Your task to perform on an android device: What's on my calendar tomorrow? Image 0: 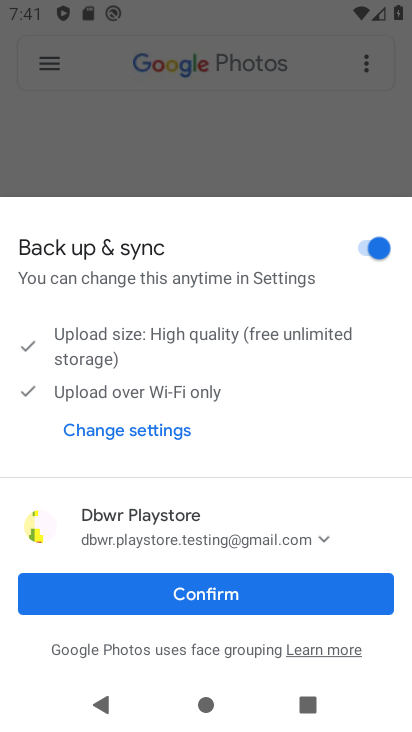
Step 0: press back button
Your task to perform on an android device: What's on my calendar tomorrow? Image 1: 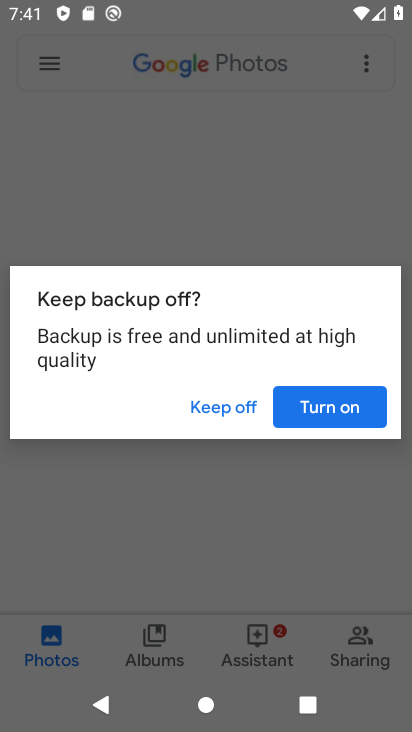
Step 1: press home button
Your task to perform on an android device: What's on my calendar tomorrow? Image 2: 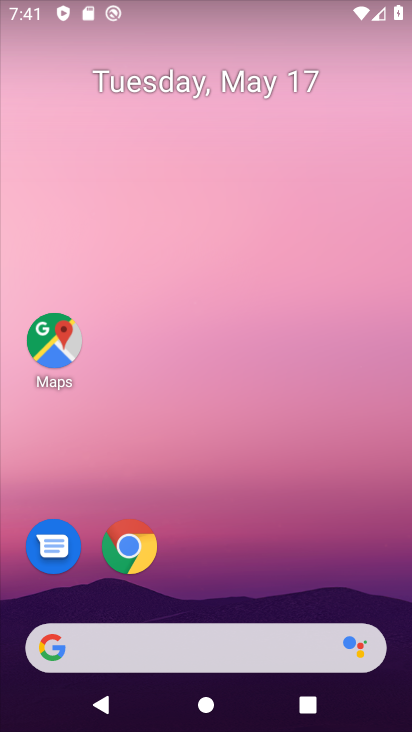
Step 2: drag from (258, 544) to (242, 85)
Your task to perform on an android device: What's on my calendar tomorrow? Image 3: 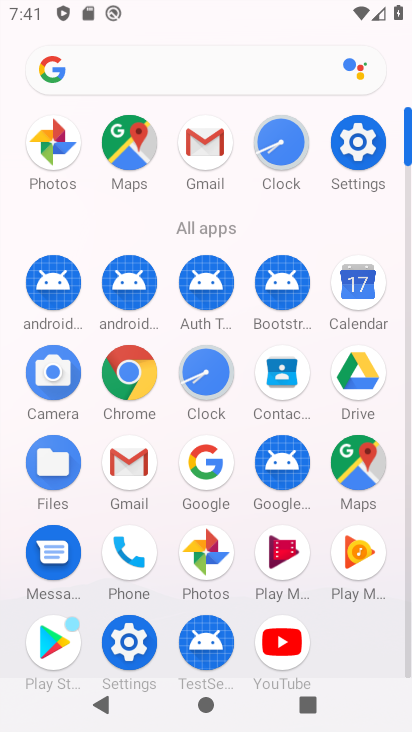
Step 3: click (365, 282)
Your task to perform on an android device: What's on my calendar tomorrow? Image 4: 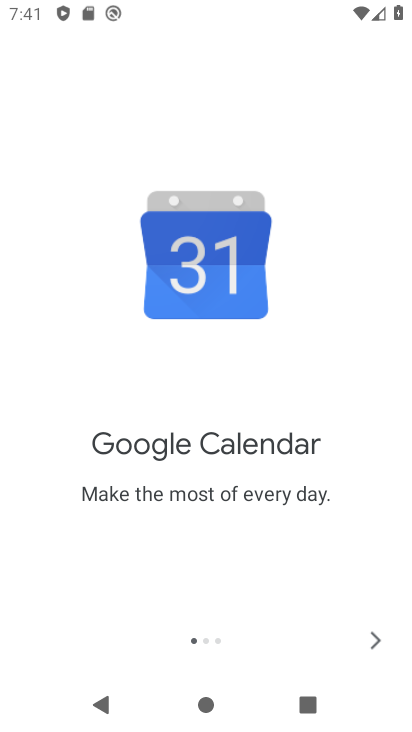
Step 4: click (382, 639)
Your task to perform on an android device: What's on my calendar tomorrow? Image 5: 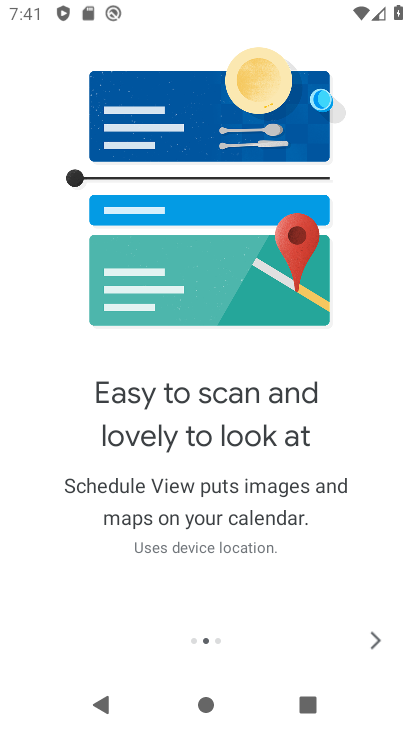
Step 5: click (382, 639)
Your task to perform on an android device: What's on my calendar tomorrow? Image 6: 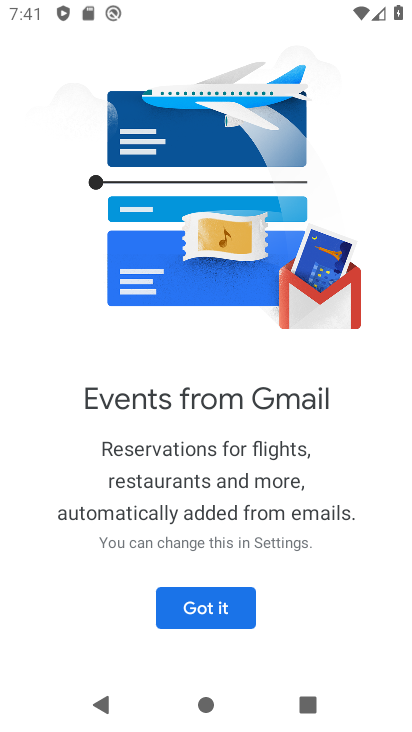
Step 6: click (232, 614)
Your task to perform on an android device: What's on my calendar tomorrow? Image 7: 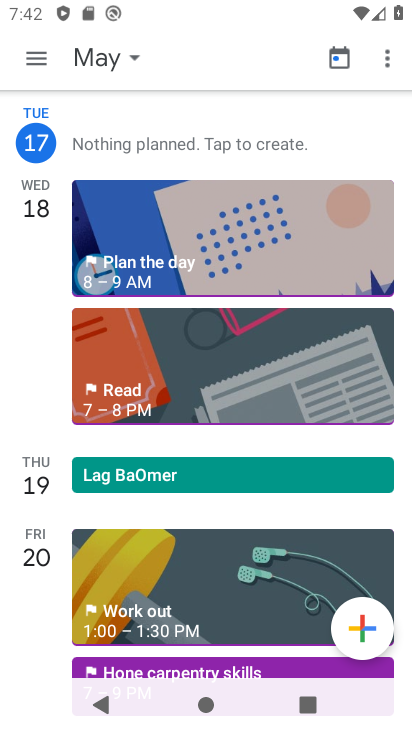
Step 7: click (122, 62)
Your task to perform on an android device: What's on my calendar tomorrow? Image 8: 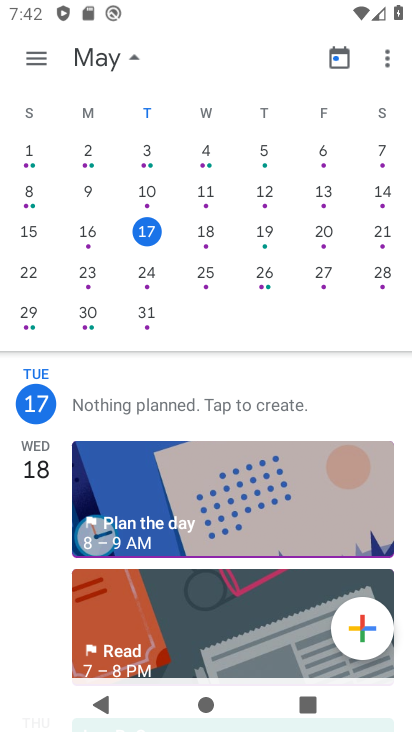
Step 8: click (206, 227)
Your task to perform on an android device: What's on my calendar tomorrow? Image 9: 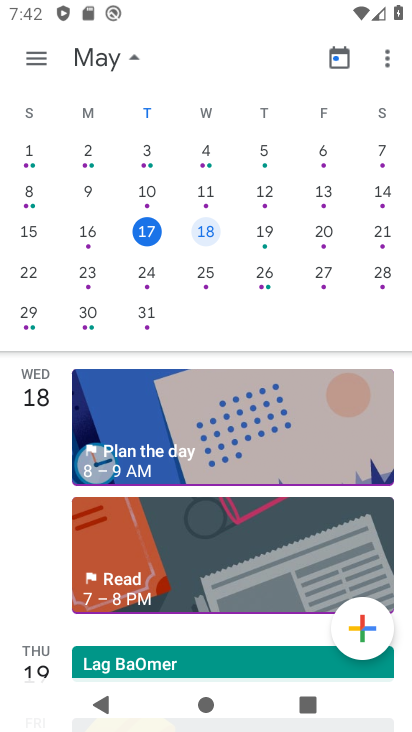
Step 9: click (35, 50)
Your task to perform on an android device: What's on my calendar tomorrow? Image 10: 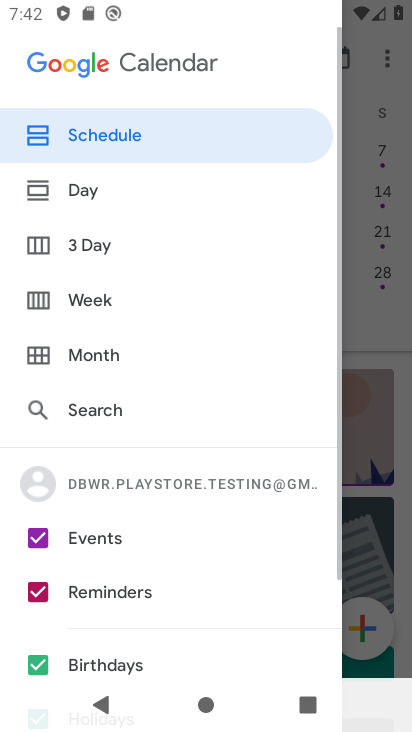
Step 10: click (106, 144)
Your task to perform on an android device: What's on my calendar tomorrow? Image 11: 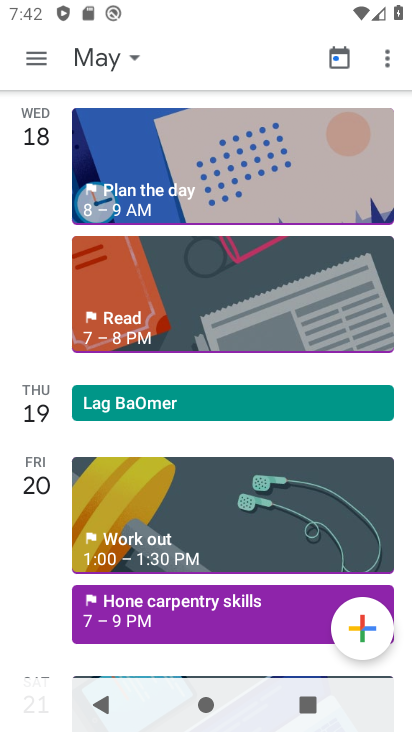
Step 11: click (226, 206)
Your task to perform on an android device: What's on my calendar tomorrow? Image 12: 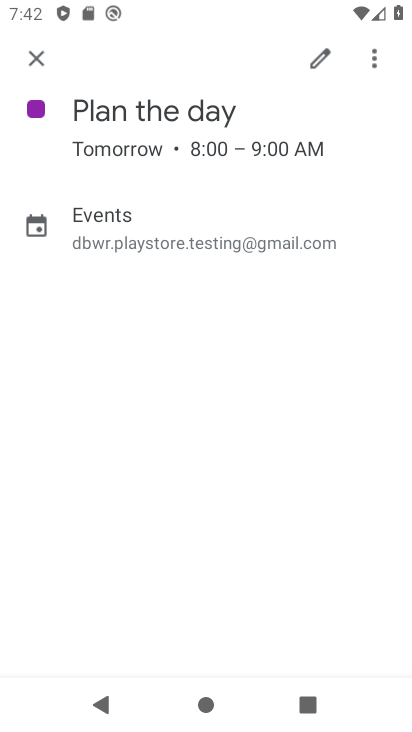
Step 12: task complete